Your task to perform on an android device: Go to internet settings Image 0: 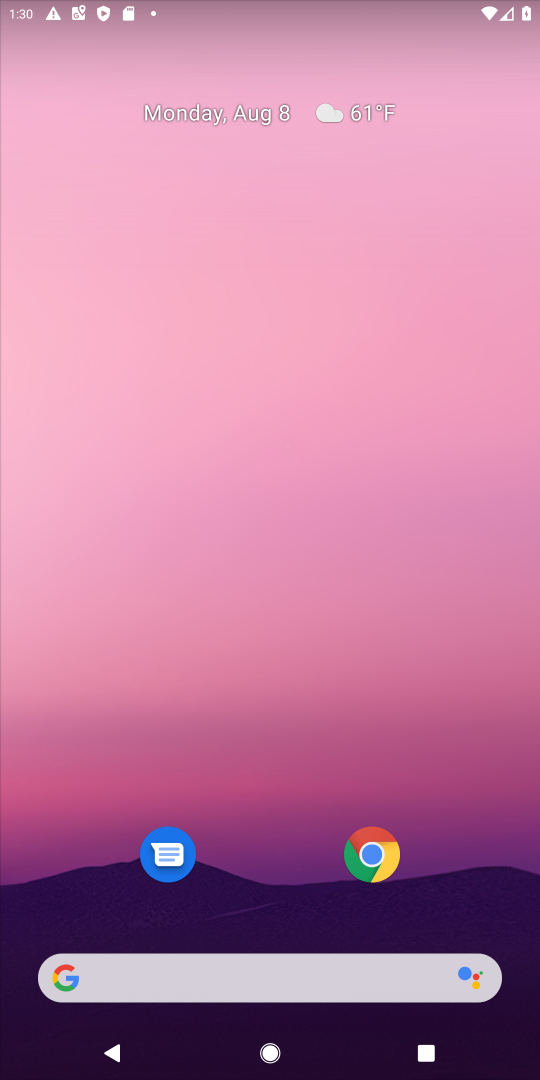
Step 0: press home button
Your task to perform on an android device: Go to internet settings Image 1: 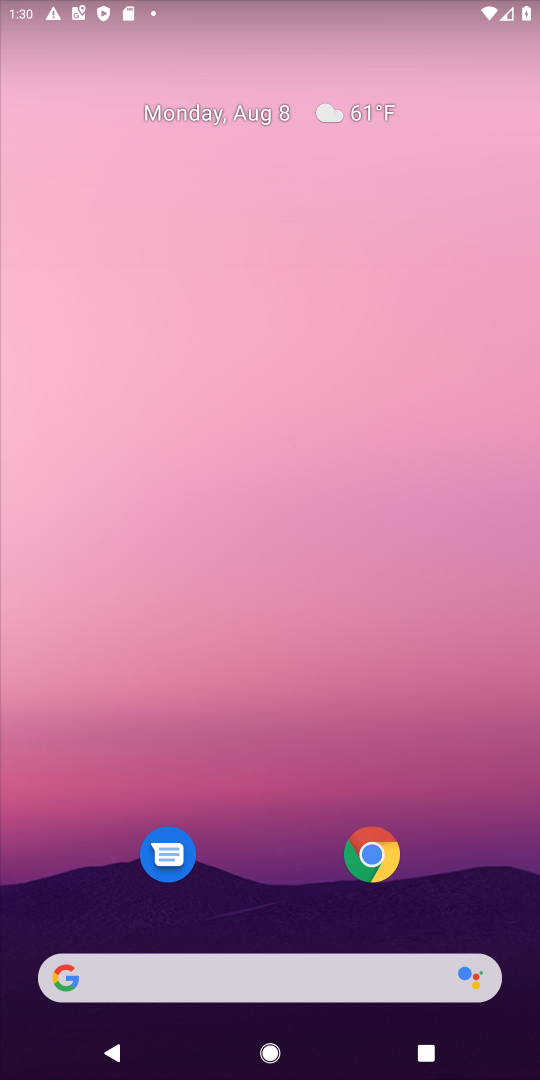
Step 1: drag from (49, 1005) to (423, 128)
Your task to perform on an android device: Go to internet settings Image 2: 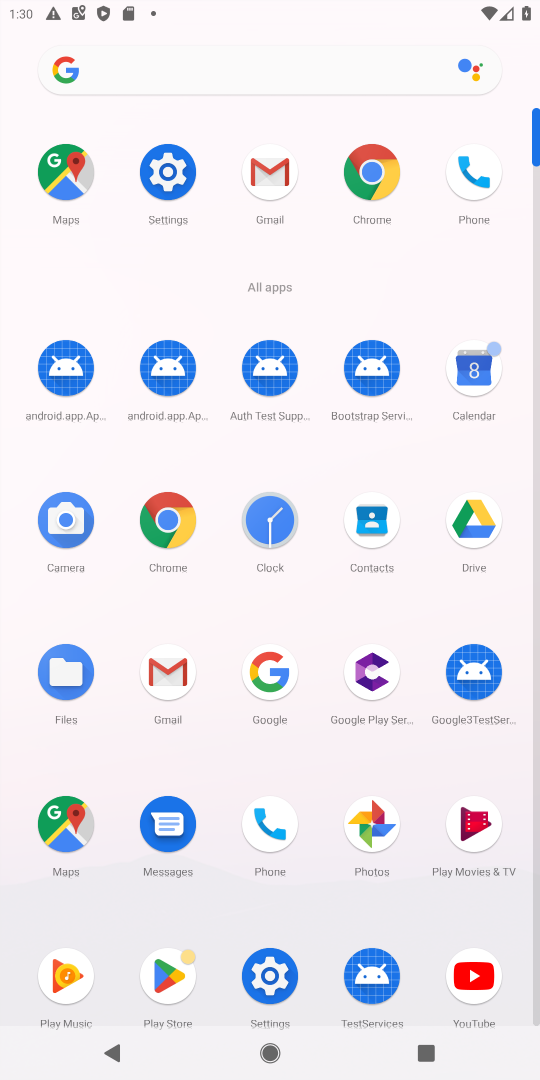
Step 2: click (284, 980)
Your task to perform on an android device: Go to internet settings Image 3: 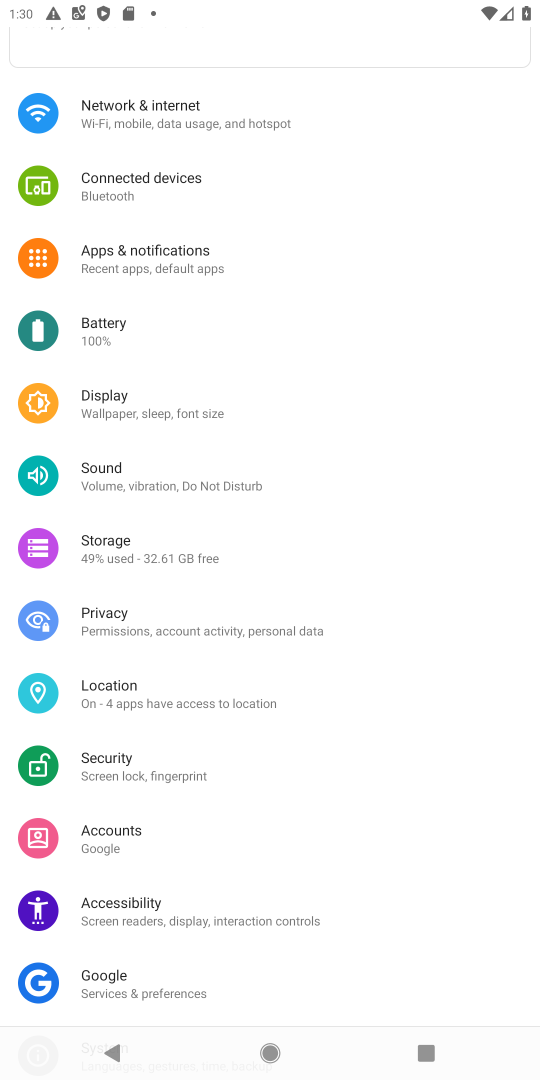
Step 3: click (202, 117)
Your task to perform on an android device: Go to internet settings Image 4: 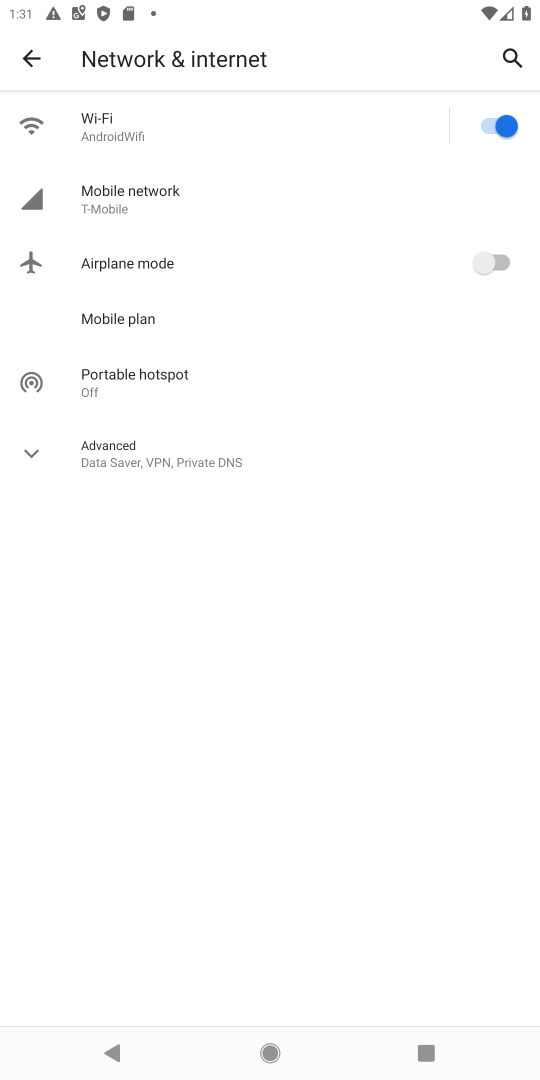
Step 4: task complete